Your task to perform on an android device: Is it going to rain tomorrow? Image 0: 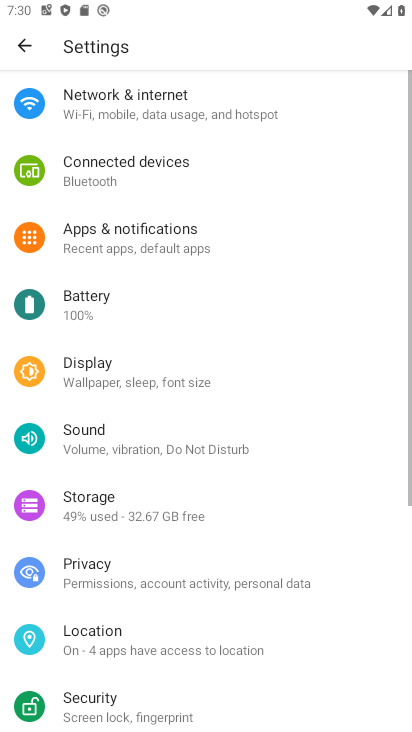
Step 0: press home button
Your task to perform on an android device: Is it going to rain tomorrow? Image 1: 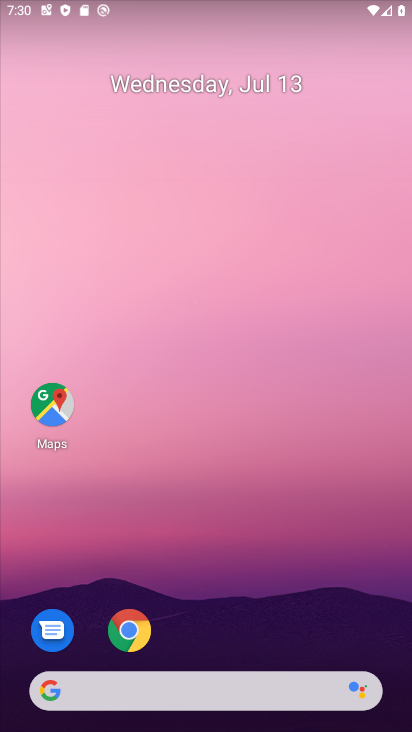
Step 1: click (246, 706)
Your task to perform on an android device: Is it going to rain tomorrow? Image 2: 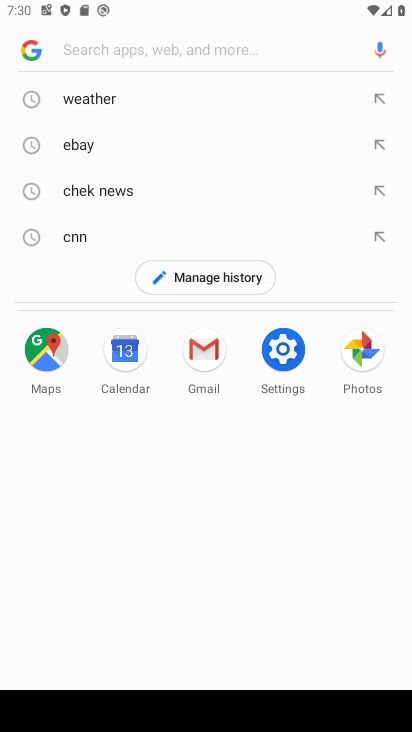
Step 2: click (86, 98)
Your task to perform on an android device: Is it going to rain tomorrow? Image 3: 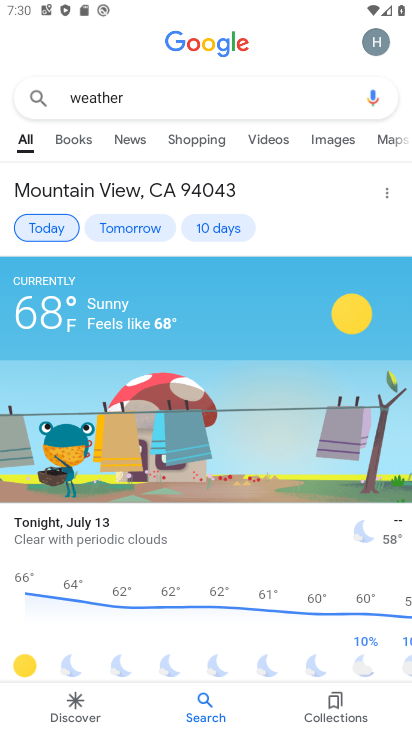
Step 3: click (128, 219)
Your task to perform on an android device: Is it going to rain tomorrow? Image 4: 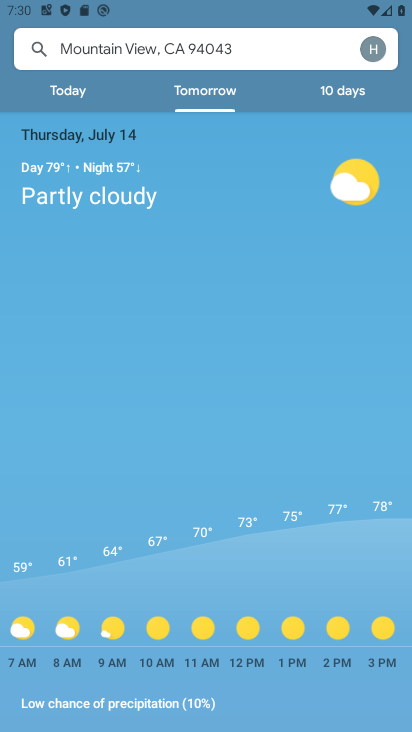
Step 4: task complete